Your task to perform on an android device: open wifi settings Image 0: 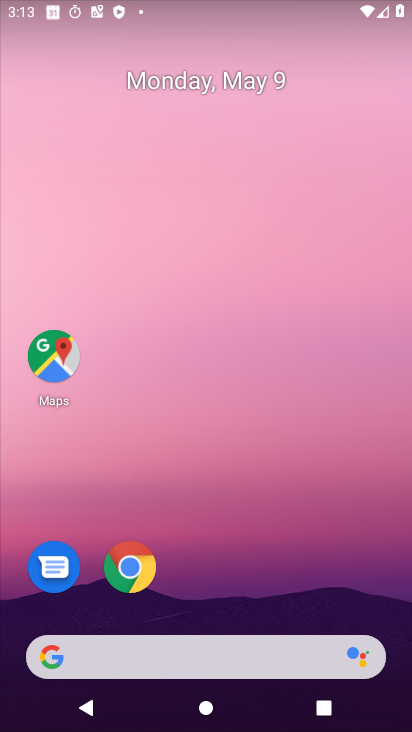
Step 0: drag from (226, 528) to (251, 62)
Your task to perform on an android device: open wifi settings Image 1: 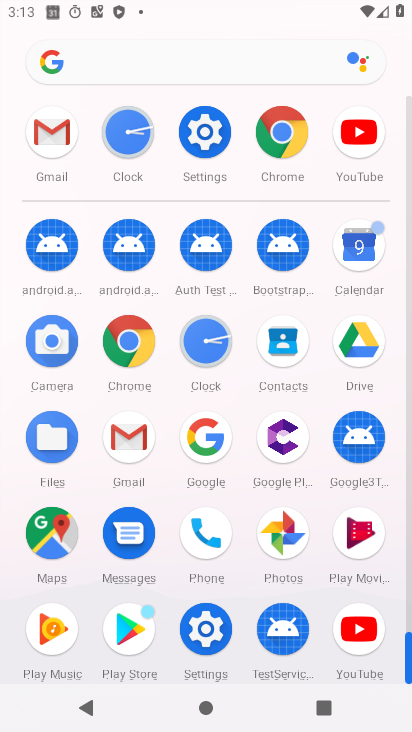
Step 1: click (210, 141)
Your task to perform on an android device: open wifi settings Image 2: 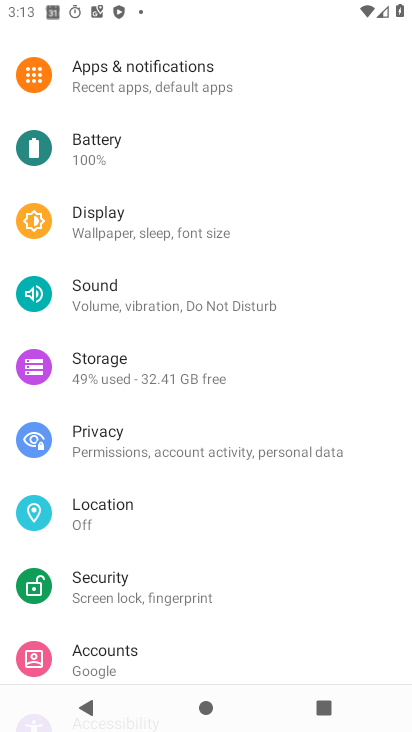
Step 2: drag from (197, 198) to (181, 508)
Your task to perform on an android device: open wifi settings Image 3: 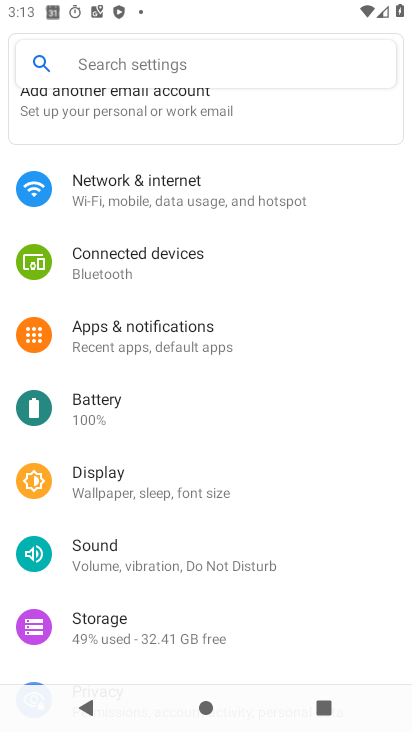
Step 3: click (165, 198)
Your task to perform on an android device: open wifi settings Image 4: 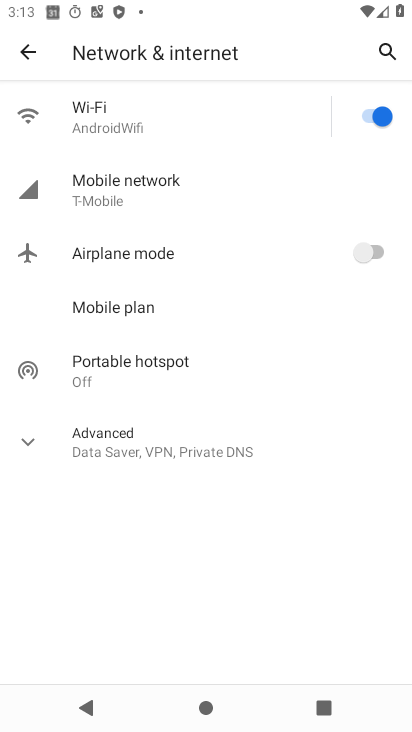
Step 4: click (153, 118)
Your task to perform on an android device: open wifi settings Image 5: 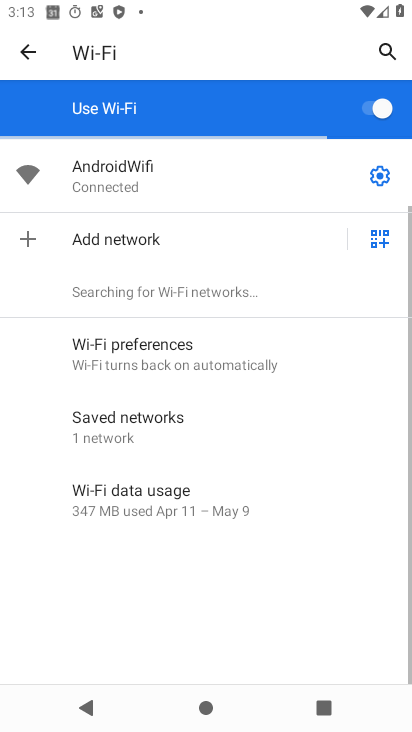
Step 5: task complete